Your task to perform on an android device: change the upload size in google photos Image 0: 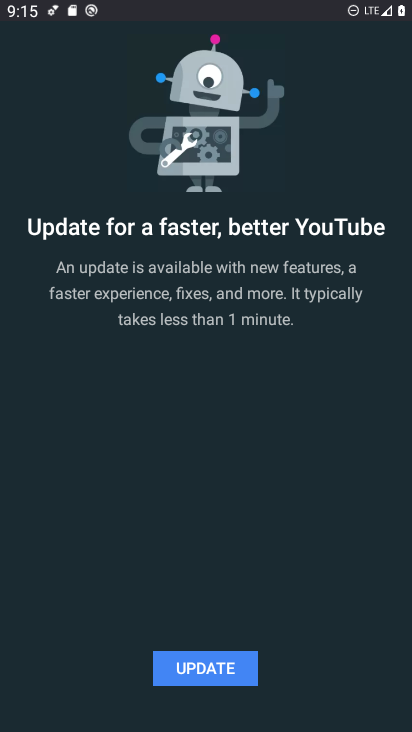
Step 0: press home button
Your task to perform on an android device: change the upload size in google photos Image 1: 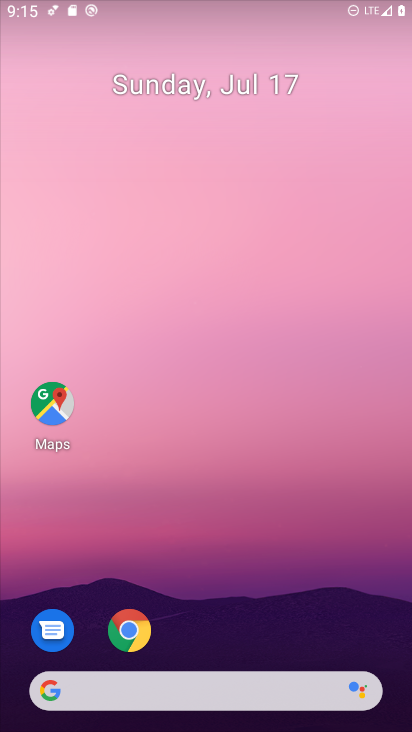
Step 1: drag from (252, 649) to (275, 59)
Your task to perform on an android device: change the upload size in google photos Image 2: 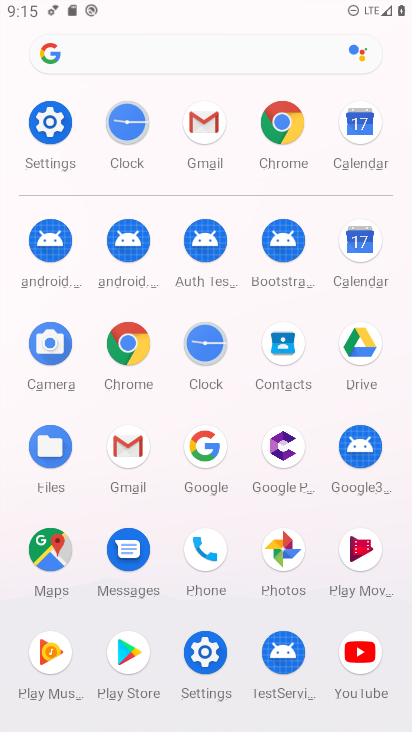
Step 2: click (276, 542)
Your task to perform on an android device: change the upload size in google photos Image 3: 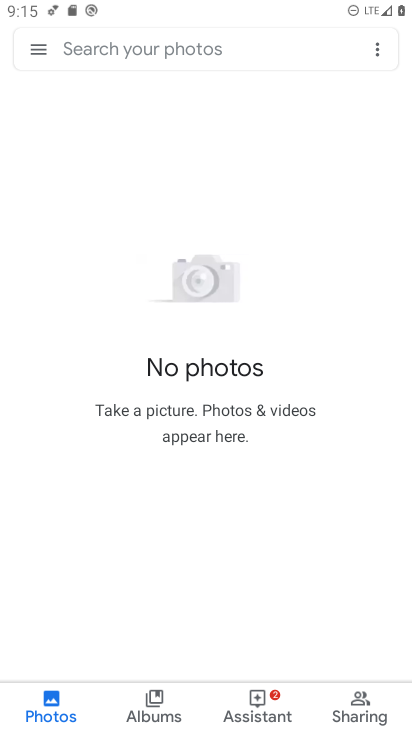
Step 3: click (37, 45)
Your task to perform on an android device: change the upload size in google photos Image 4: 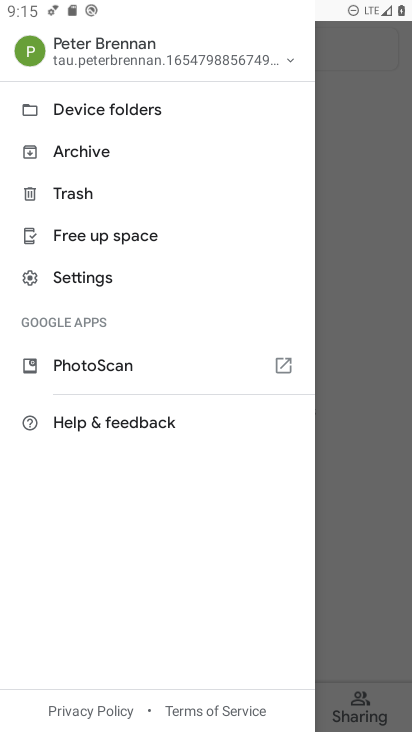
Step 4: click (134, 266)
Your task to perform on an android device: change the upload size in google photos Image 5: 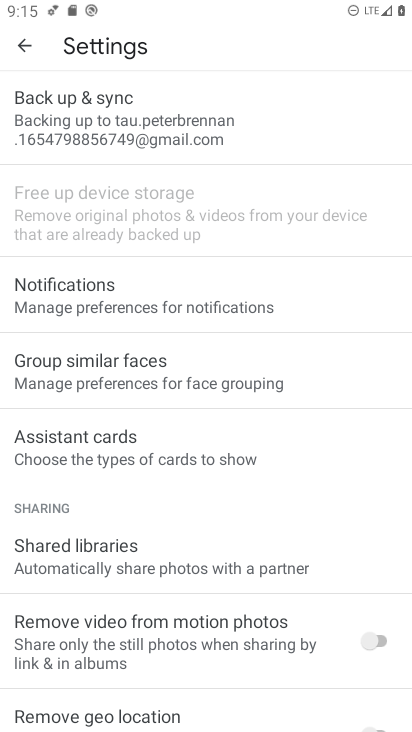
Step 5: click (135, 115)
Your task to perform on an android device: change the upload size in google photos Image 6: 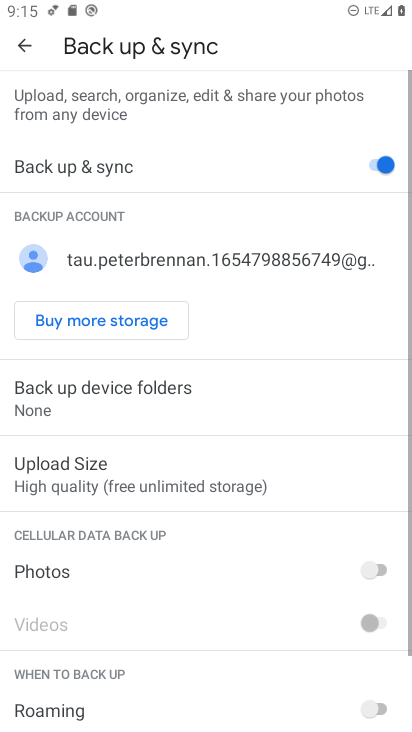
Step 6: click (125, 473)
Your task to perform on an android device: change the upload size in google photos Image 7: 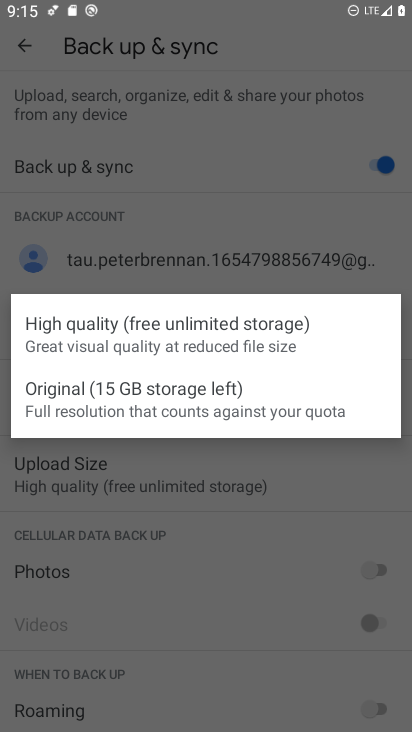
Step 7: click (118, 411)
Your task to perform on an android device: change the upload size in google photos Image 8: 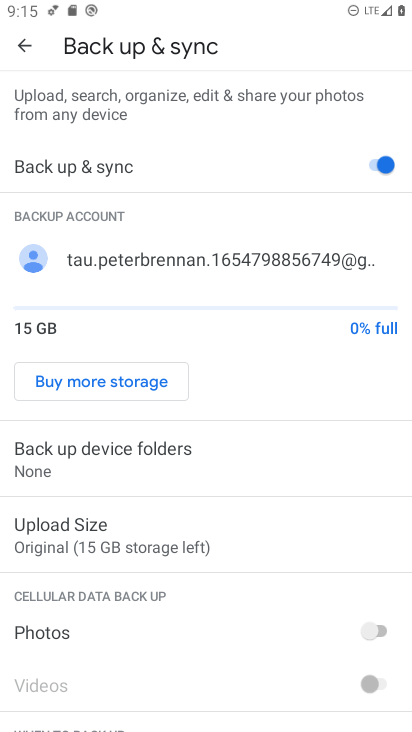
Step 8: task complete